Your task to perform on an android device: Open Google Image 0: 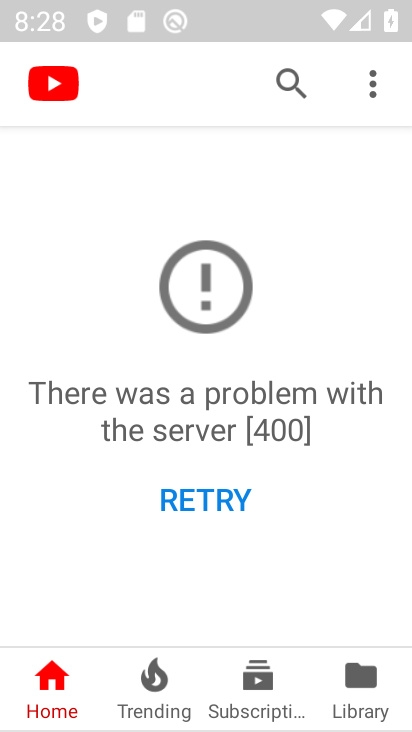
Step 0: press back button
Your task to perform on an android device: Open Google Image 1: 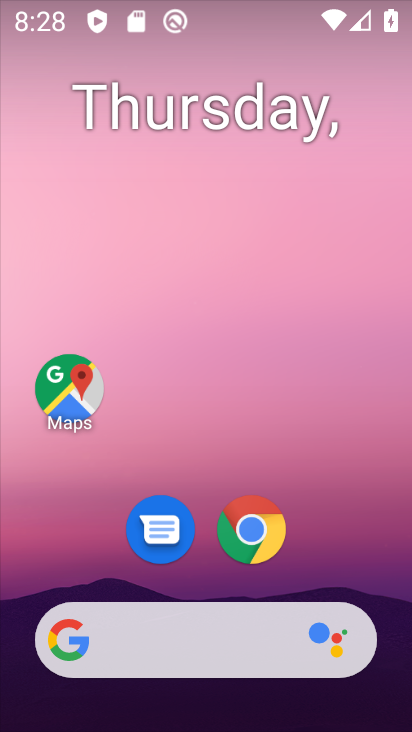
Step 1: drag from (344, 524) to (269, 71)
Your task to perform on an android device: Open Google Image 2: 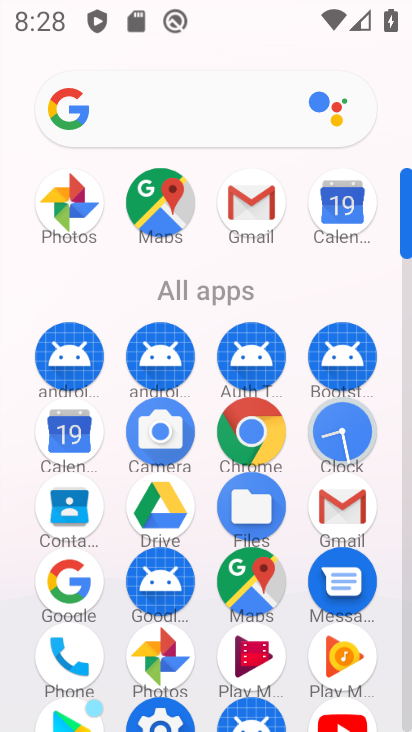
Step 2: click (63, 581)
Your task to perform on an android device: Open Google Image 3: 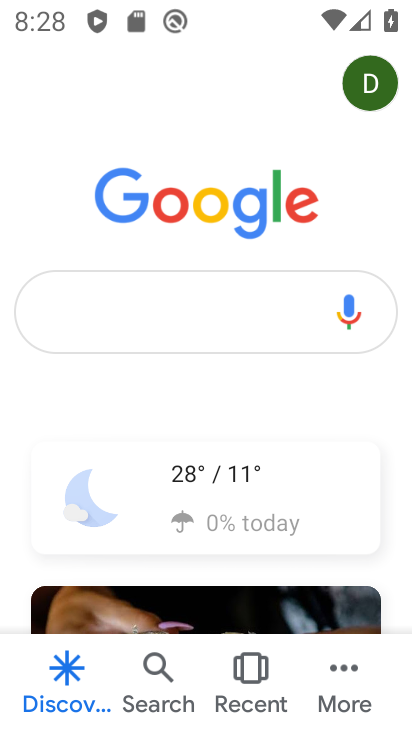
Step 3: task complete